Your task to perform on an android device: check android version Image 0: 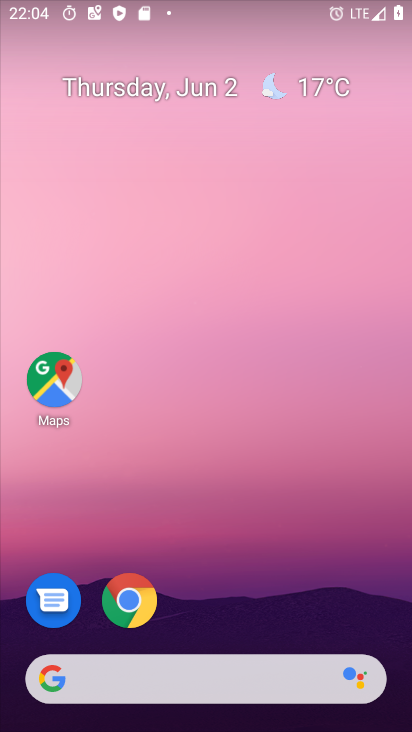
Step 0: drag from (323, 600) to (325, 157)
Your task to perform on an android device: check android version Image 1: 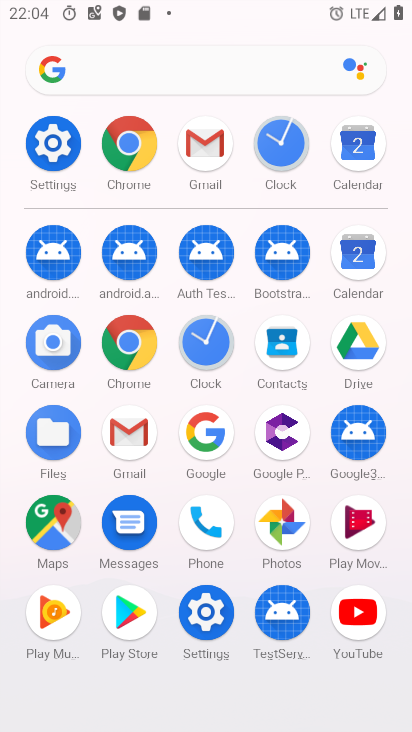
Step 1: click (202, 625)
Your task to perform on an android device: check android version Image 2: 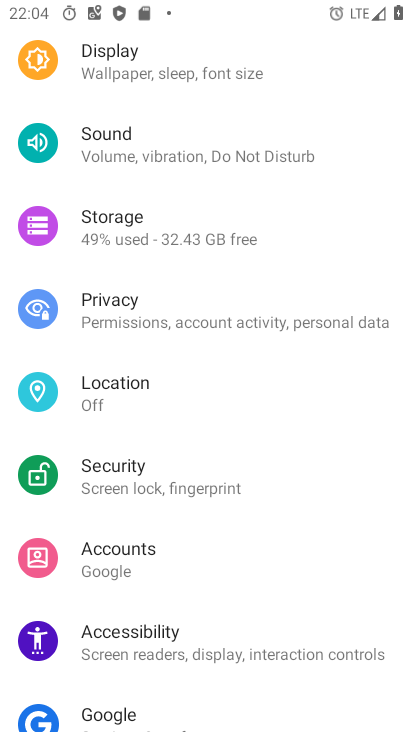
Step 2: drag from (297, 242) to (302, 392)
Your task to perform on an android device: check android version Image 3: 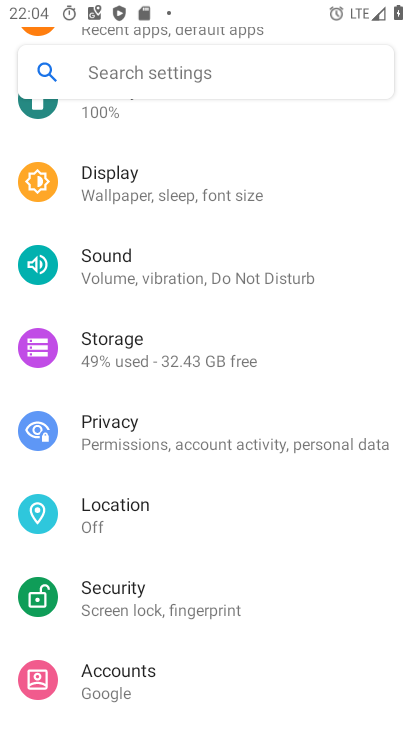
Step 3: drag from (327, 228) to (334, 335)
Your task to perform on an android device: check android version Image 4: 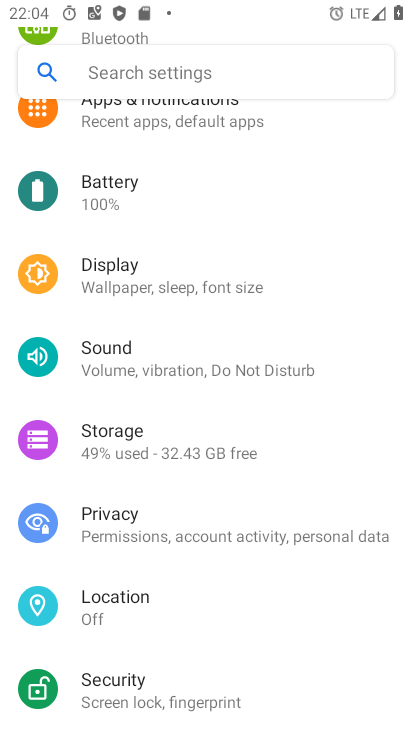
Step 4: drag from (350, 227) to (353, 382)
Your task to perform on an android device: check android version Image 5: 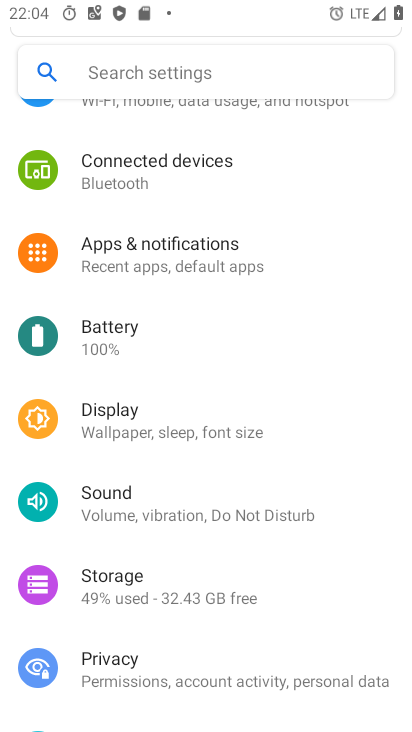
Step 5: drag from (346, 190) to (328, 368)
Your task to perform on an android device: check android version Image 6: 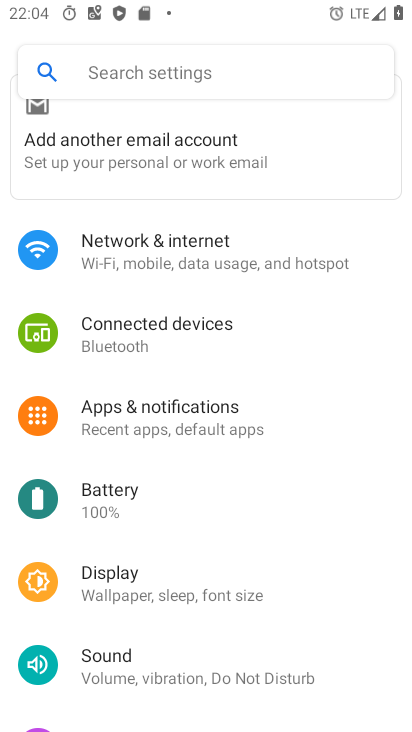
Step 6: drag from (333, 154) to (338, 376)
Your task to perform on an android device: check android version Image 7: 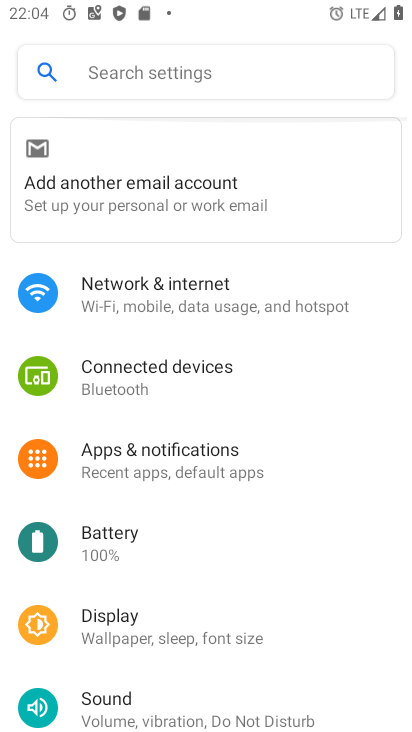
Step 7: drag from (344, 406) to (359, 287)
Your task to perform on an android device: check android version Image 8: 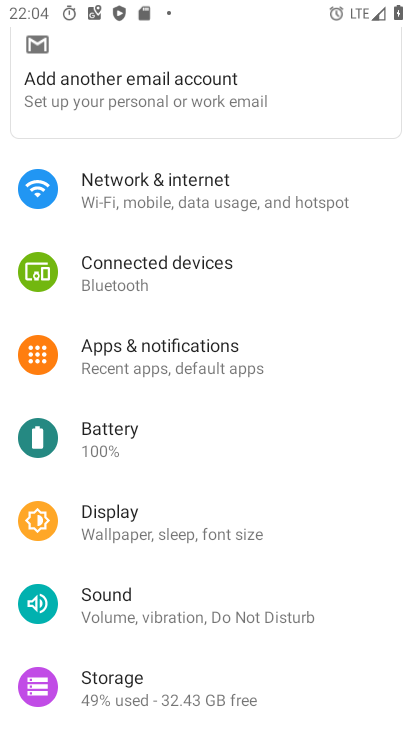
Step 8: drag from (351, 418) to (355, 317)
Your task to perform on an android device: check android version Image 9: 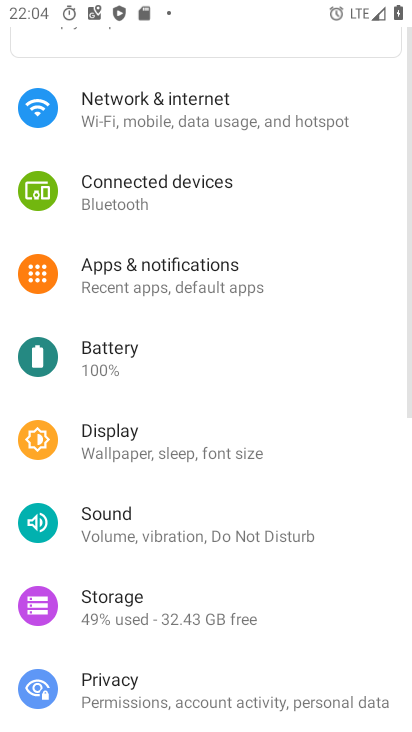
Step 9: drag from (341, 422) to (340, 315)
Your task to perform on an android device: check android version Image 10: 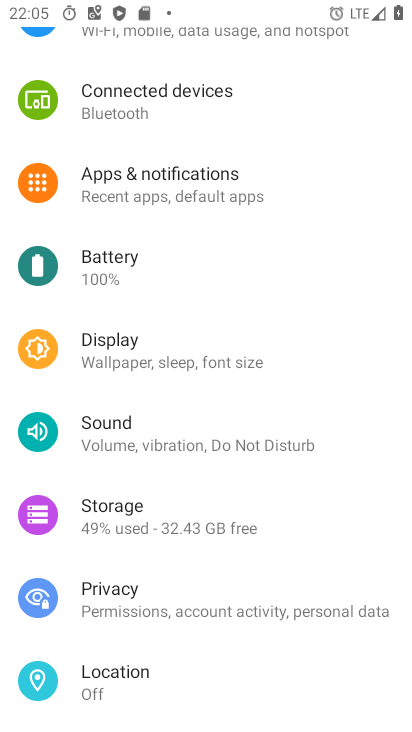
Step 10: drag from (339, 466) to (342, 353)
Your task to perform on an android device: check android version Image 11: 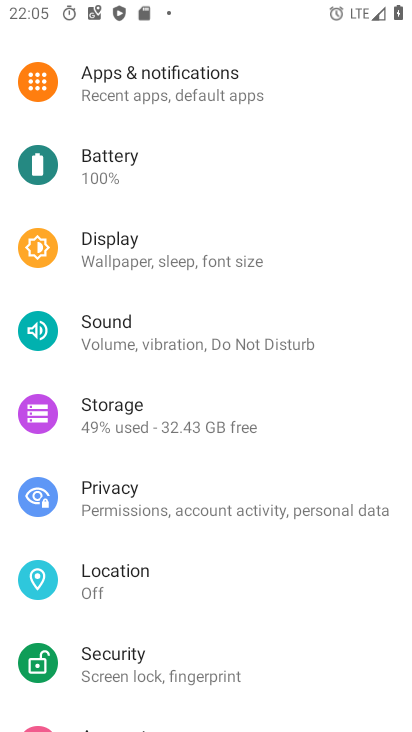
Step 11: drag from (339, 429) to (351, 342)
Your task to perform on an android device: check android version Image 12: 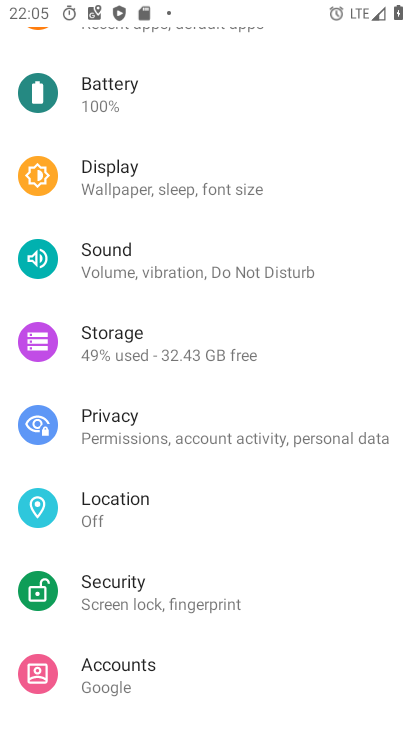
Step 12: drag from (337, 504) to (348, 358)
Your task to perform on an android device: check android version Image 13: 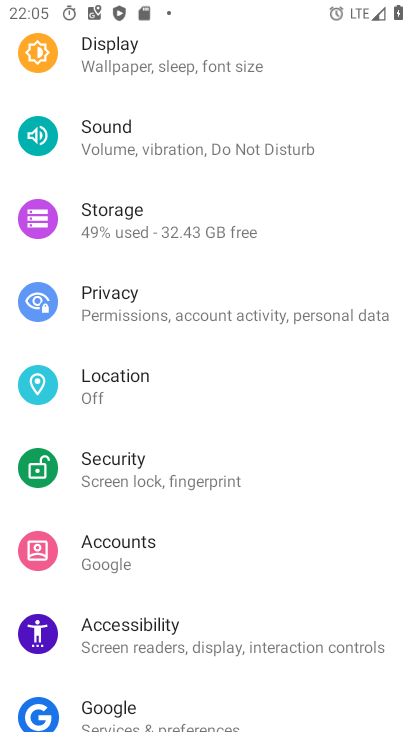
Step 13: drag from (333, 514) to (342, 253)
Your task to perform on an android device: check android version Image 14: 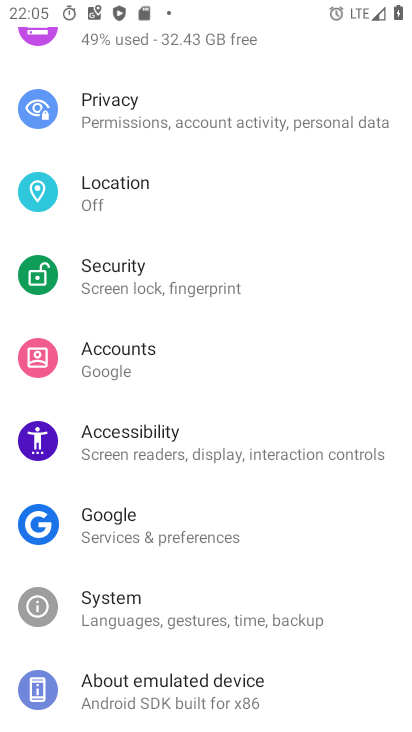
Step 14: click (269, 607)
Your task to perform on an android device: check android version Image 15: 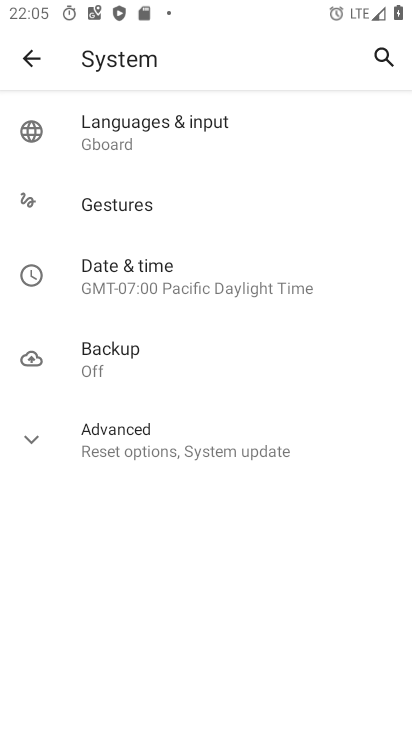
Step 15: click (235, 439)
Your task to perform on an android device: check android version Image 16: 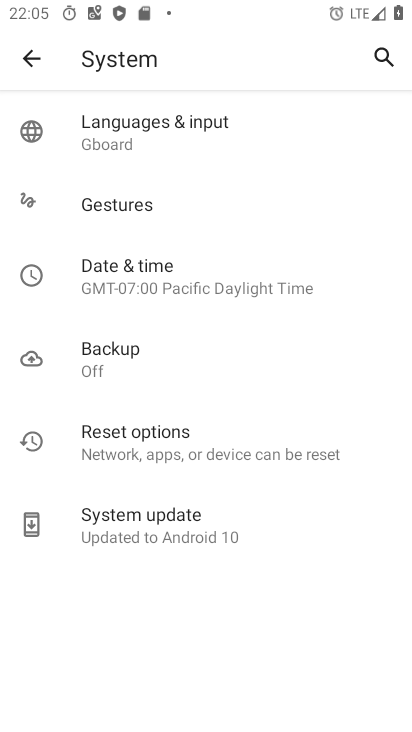
Step 16: click (153, 538)
Your task to perform on an android device: check android version Image 17: 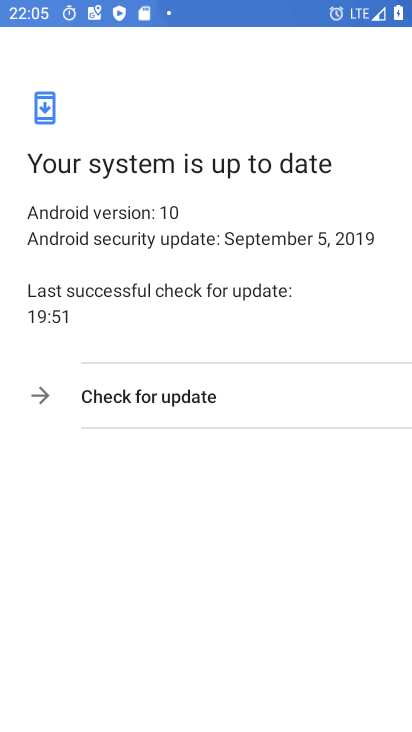
Step 17: task complete